Your task to perform on an android device: Open calendar and show me the second week of next month Image 0: 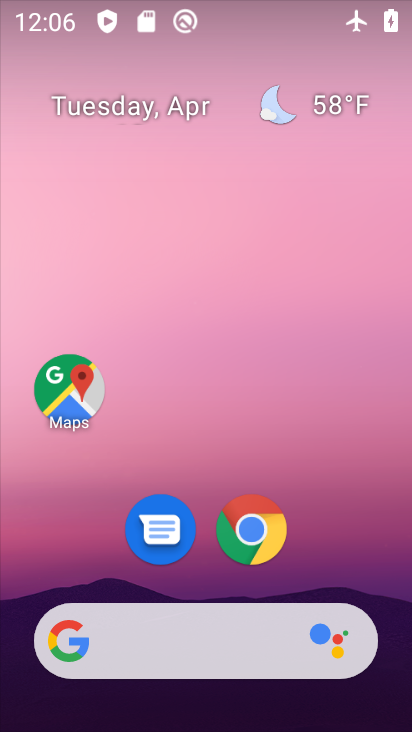
Step 0: drag from (233, 181) to (185, 67)
Your task to perform on an android device: Open calendar and show me the second week of next month Image 1: 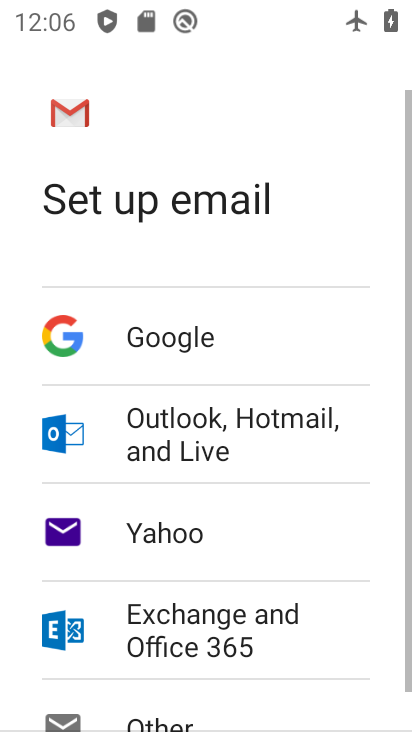
Step 1: press home button
Your task to perform on an android device: Open calendar and show me the second week of next month Image 2: 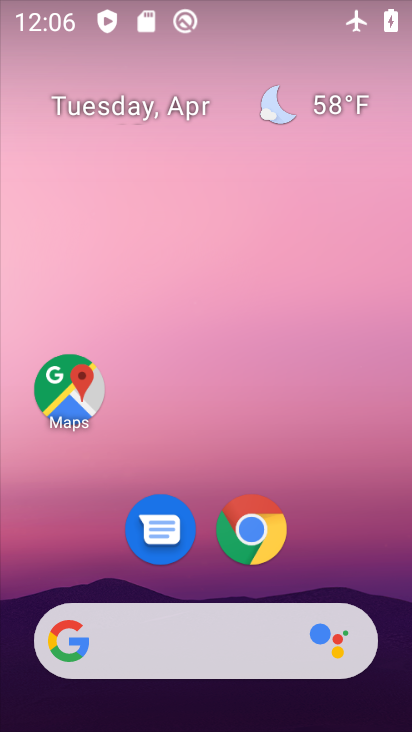
Step 2: drag from (370, 575) to (128, 33)
Your task to perform on an android device: Open calendar and show me the second week of next month Image 3: 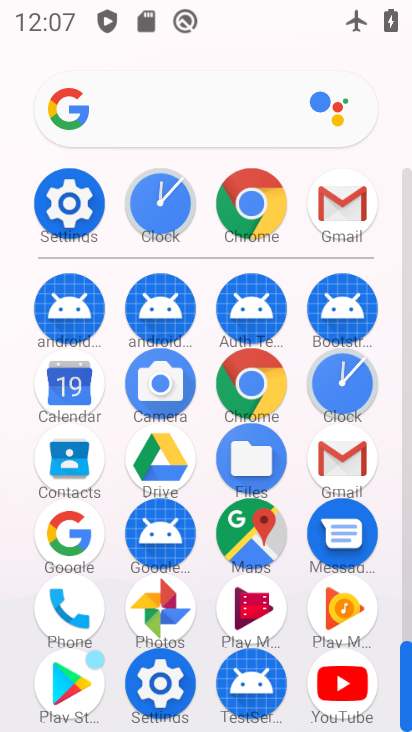
Step 3: click (62, 387)
Your task to perform on an android device: Open calendar and show me the second week of next month Image 4: 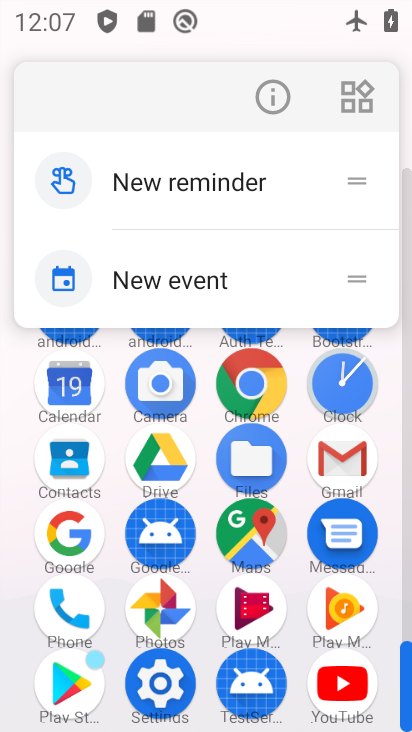
Step 4: click (71, 390)
Your task to perform on an android device: Open calendar and show me the second week of next month Image 5: 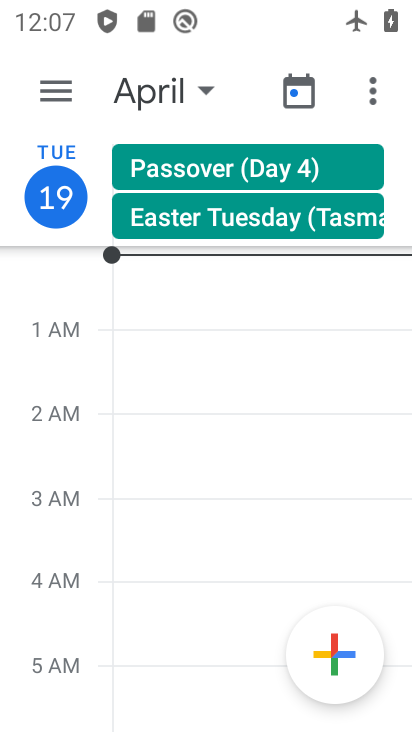
Step 5: click (145, 99)
Your task to perform on an android device: Open calendar and show me the second week of next month Image 6: 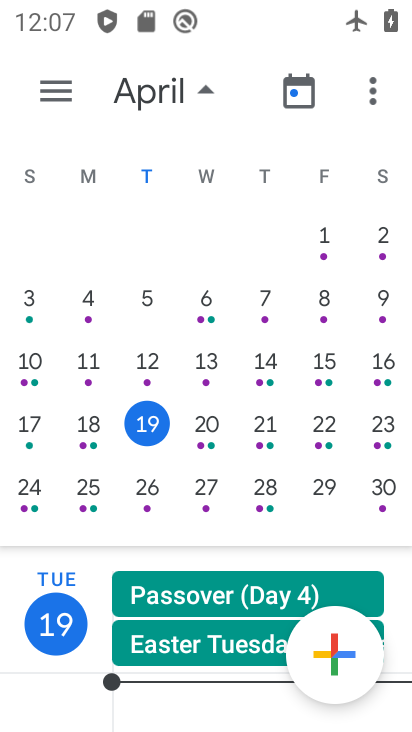
Step 6: drag from (375, 396) to (26, 315)
Your task to perform on an android device: Open calendar and show me the second week of next month Image 7: 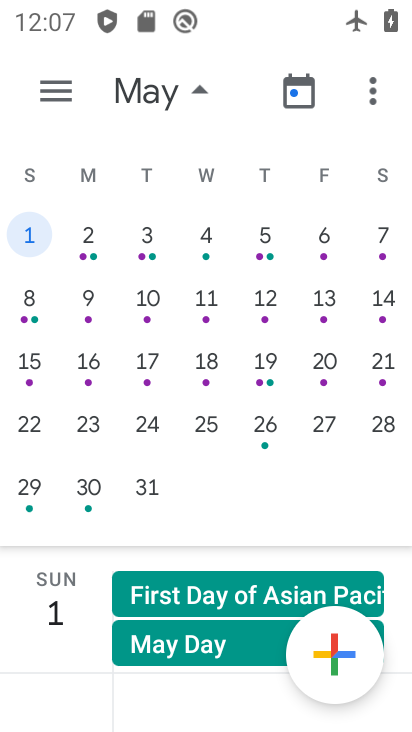
Step 7: click (204, 303)
Your task to perform on an android device: Open calendar and show me the second week of next month Image 8: 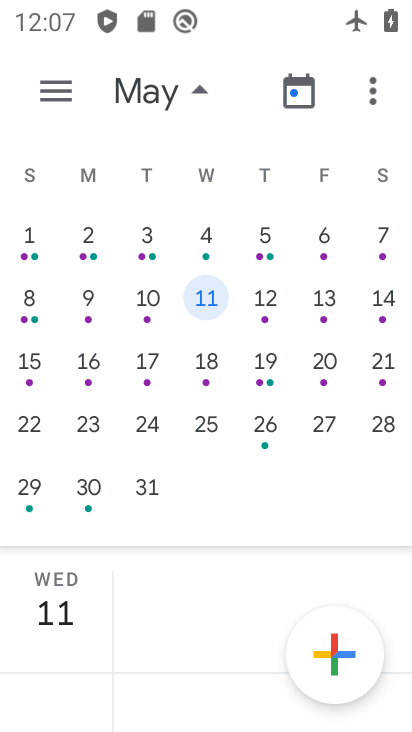
Step 8: task complete